Your task to perform on an android device: refresh tabs in the chrome app Image 0: 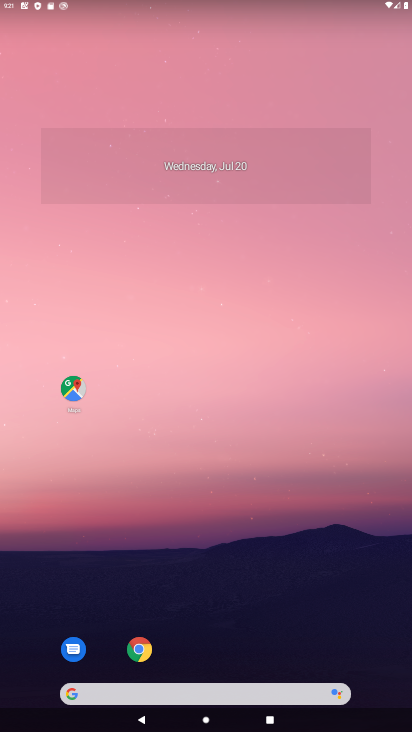
Step 0: click (151, 660)
Your task to perform on an android device: refresh tabs in the chrome app Image 1: 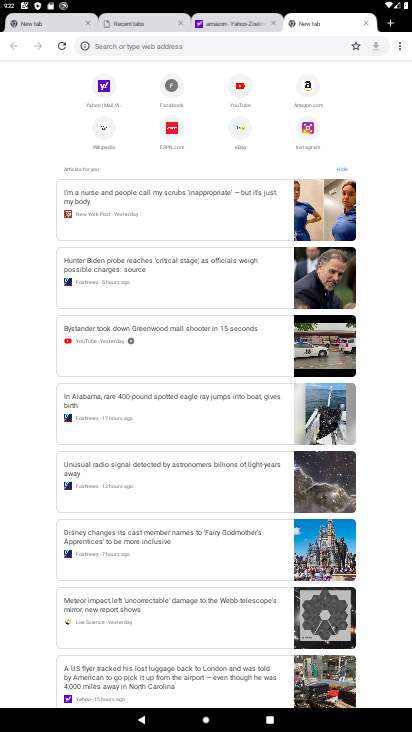
Step 1: task complete